Your task to perform on an android device: Open the calendar and show me this week's events Image 0: 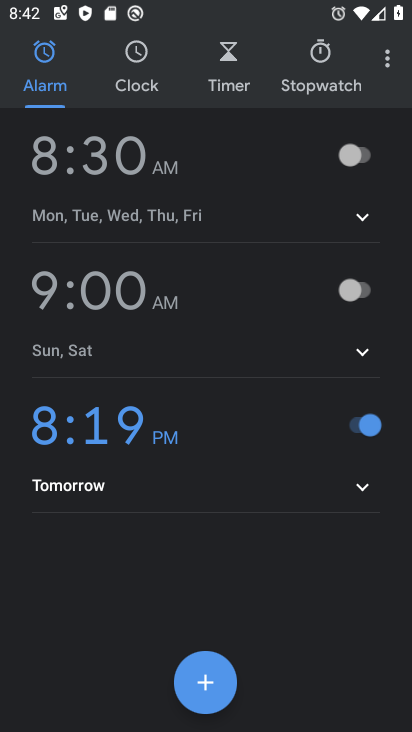
Step 0: press home button
Your task to perform on an android device: Open the calendar and show me this week's events Image 1: 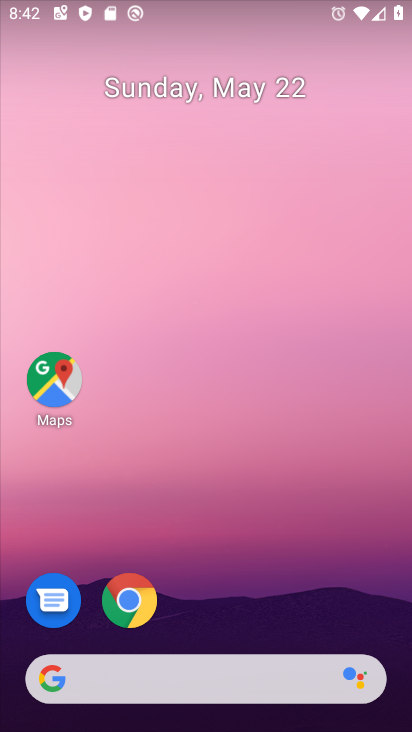
Step 1: drag from (214, 643) to (205, 150)
Your task to perform on an android device: Open the calendar and show me this week's events Image 2: 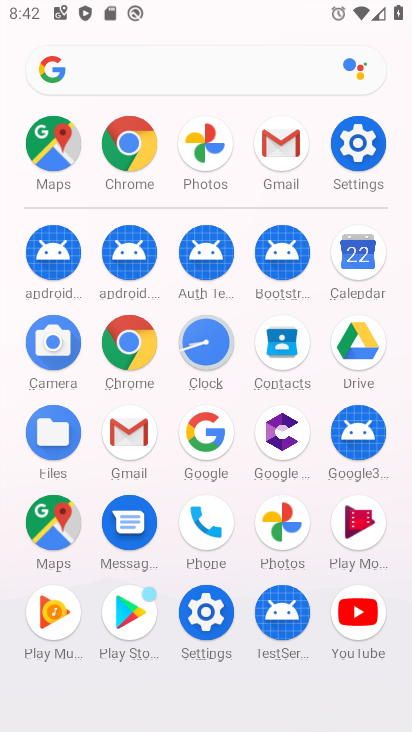
Step 2: click (369, 259)
Your task to perform on an android device: Open the calendar and show me this week's events Image 3: 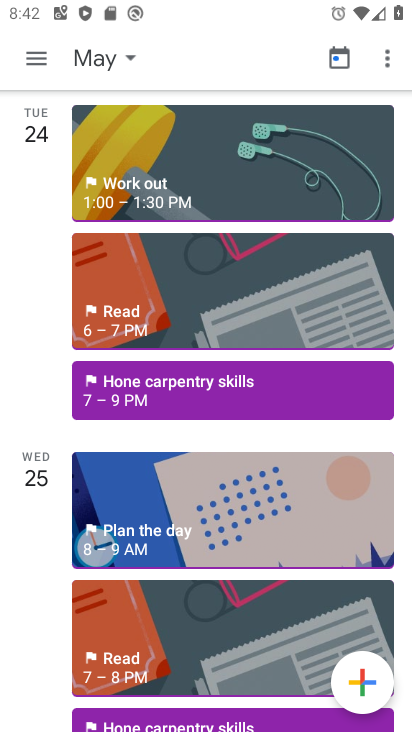
Step 3: click (116, 65)
Your task to perform on an android device: Open the calendar and show me this week's events Image 4: 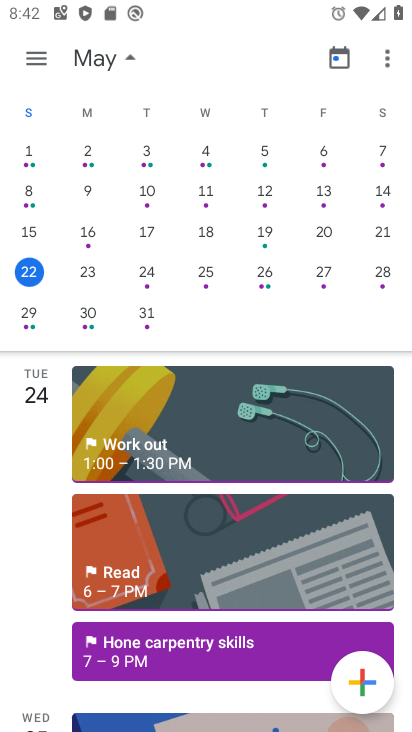
Step 4: task complete